Your task to perform on an android device: What's the weather going to be this weekend? Image 0: 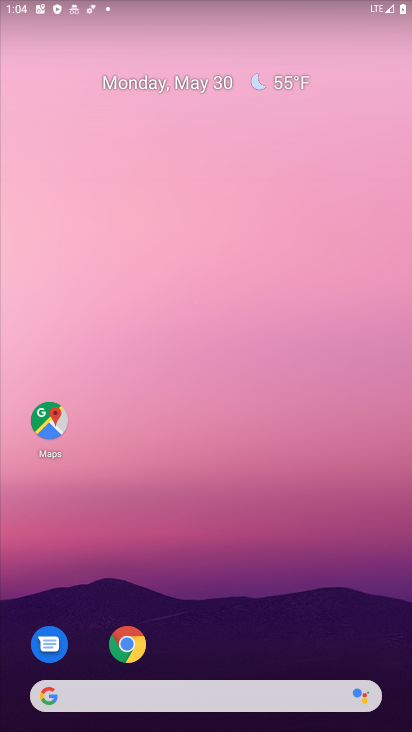
Step 0: drag from (278, 622) to (219, 157)
Your task to perform on an android device: What's the weather going to be this weekend? Image 1: 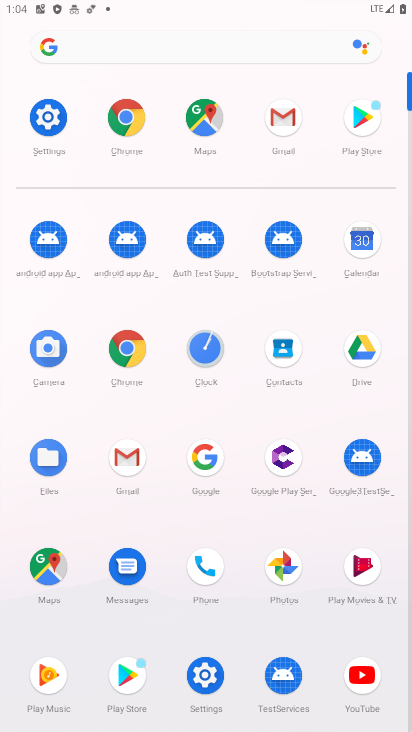
Step 1: click (117, 34)
Your task to perform on an android device: What's the weather going to be this weekend? Image 2: 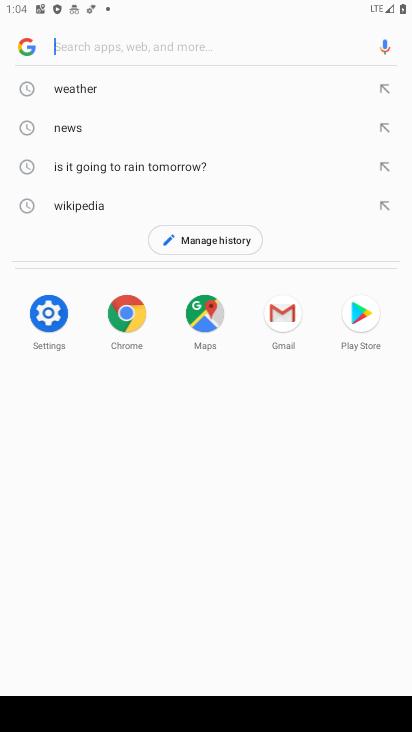
Step 2: click (129, 74)
Your task to perform on an android device: What's the weather going to be this weekend? Image 3: 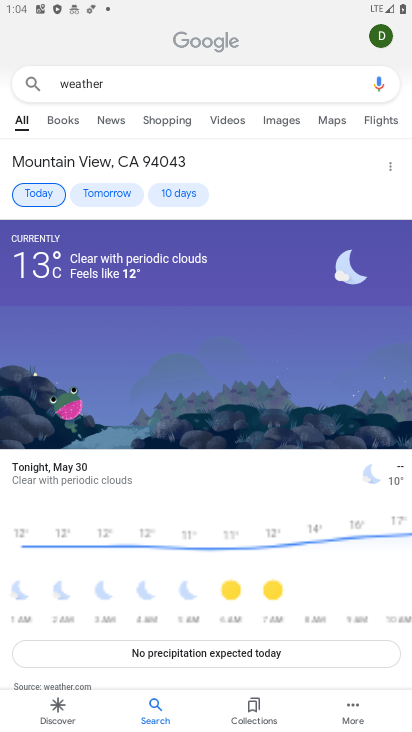
Step 3: click (181, 196)
Your task to perform on an android device: What's the weather going to be this weekend? Image 4: 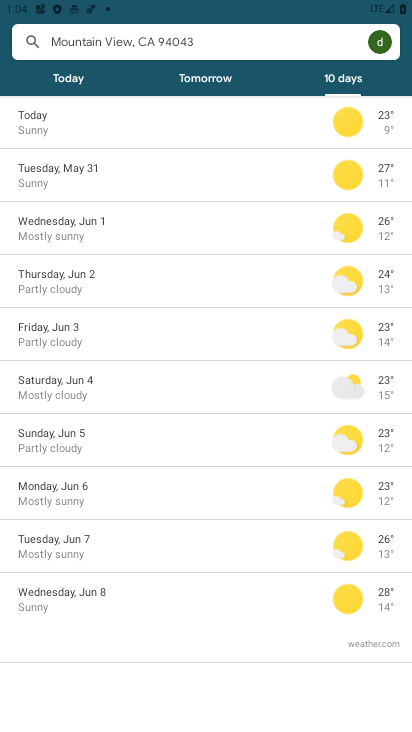
Step 4: task complete